Your task to perform on an android device: Open notification settings Image 0: 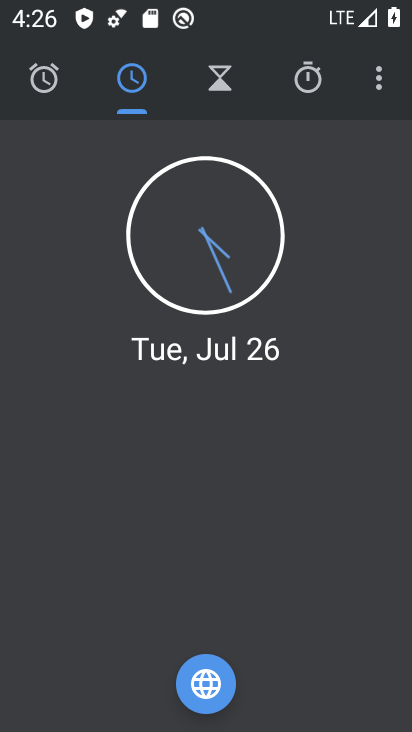
Step 0: press back button
Your task to perform on an android device: Open notification settings Image 1: 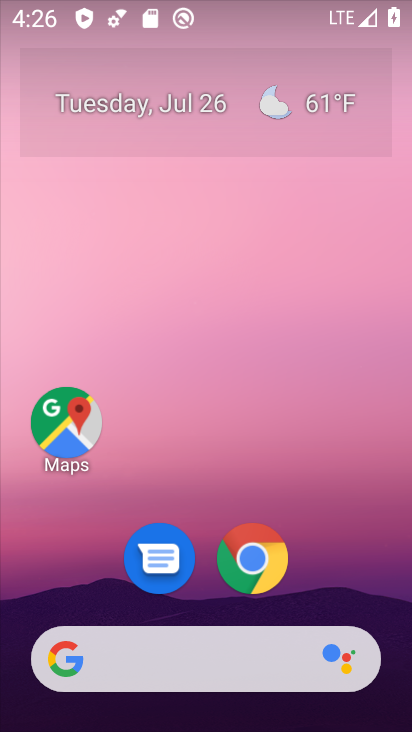
Step 1: drag from (45, 569) to (189, 11)
Your task to perform on an android device: Open notification settings Image 2: 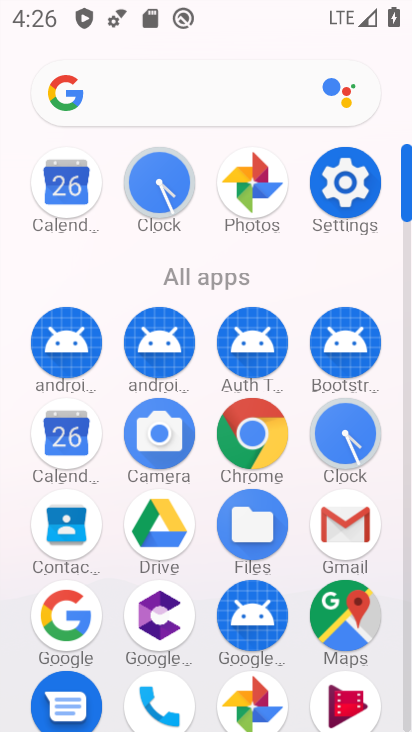
Step 2: click (354, 176)
Your task to perform on an android device: Open notification settings Image 3: 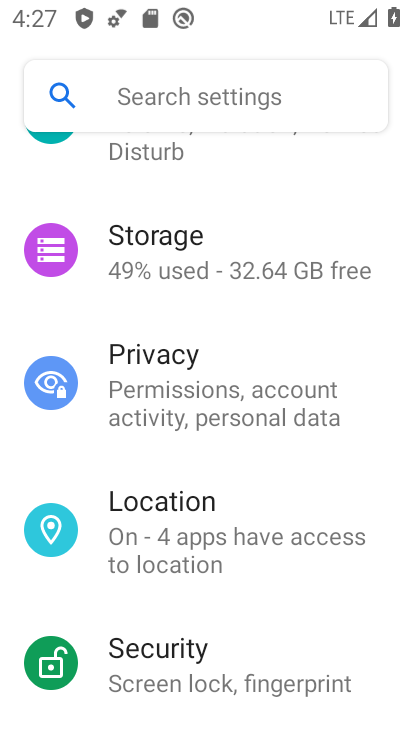
Step 3: drag from (224, 296) to (220, 727)
Your task to perform on an android device: Open notification settings Image 4: 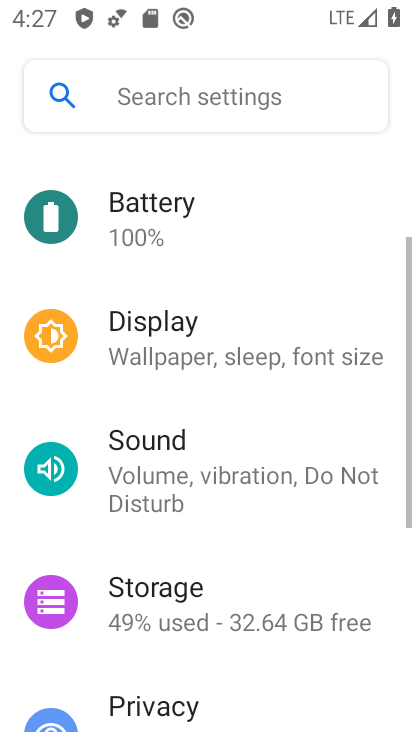
Step 4: drag from (197, 273) to (214, 618)
Your task to perform on an android device: Open notification settings Image 5: 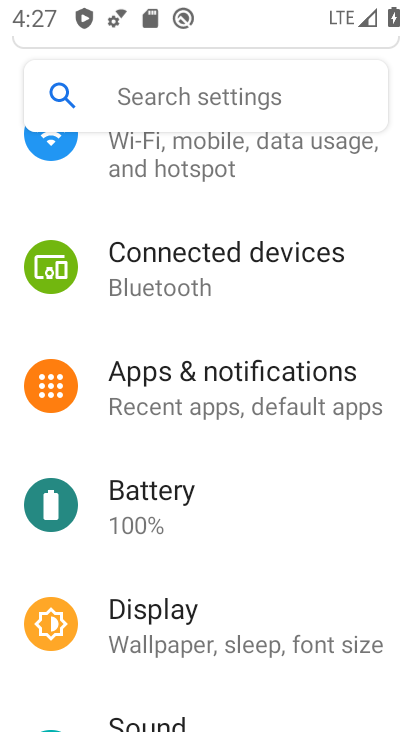
Step 5: click (177, 398)
Your task to perform on an android device: Open notification settings Image 6: 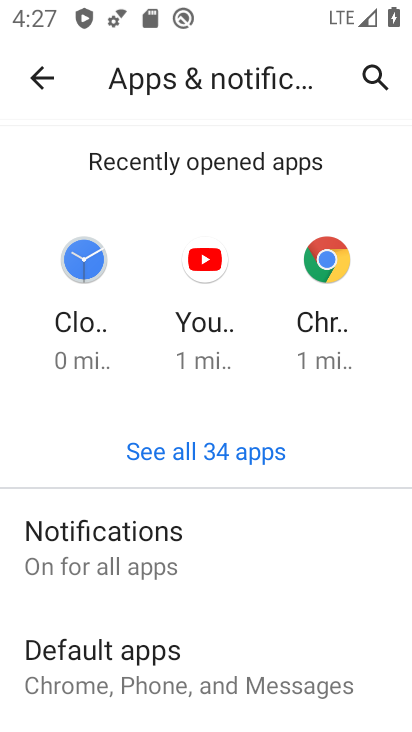
Step 6: click (107, 553)
Your task to perform on an android device: Open notification settings Image 7: 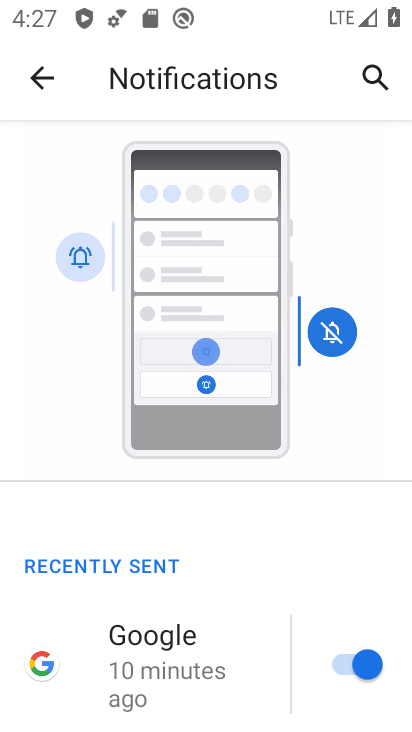
Step 7: task complete